Your task to perform on an android device: check storage Image 0: 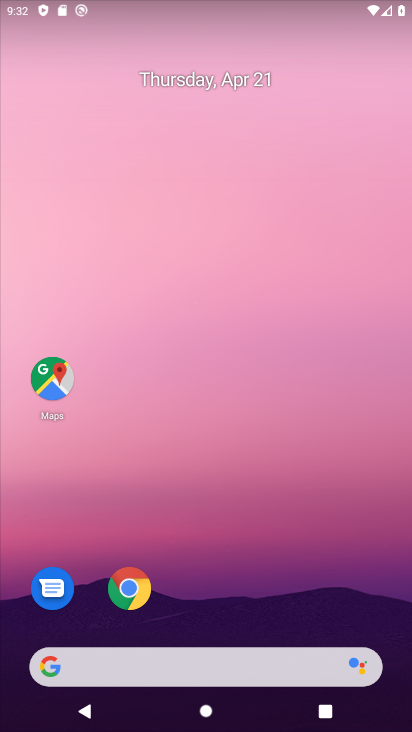
Step 0: drag from (286, 608) to (254, 1)
Your task to perform on an android device: check storage Image 1: 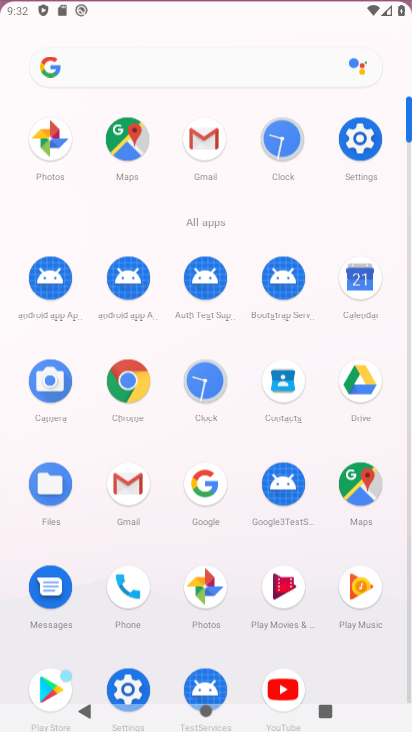
Step 1: click (371, 134)
Your task to perform on an android device: check storage Image 2: 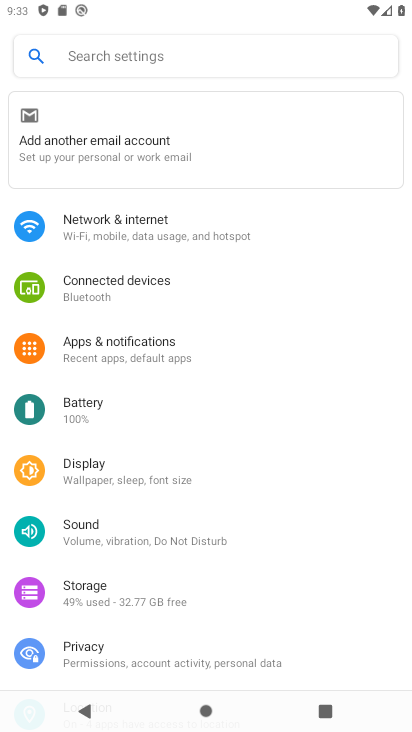
Step 2: click (119, 599)
Your task to perform on an android device: check storage Image 3: 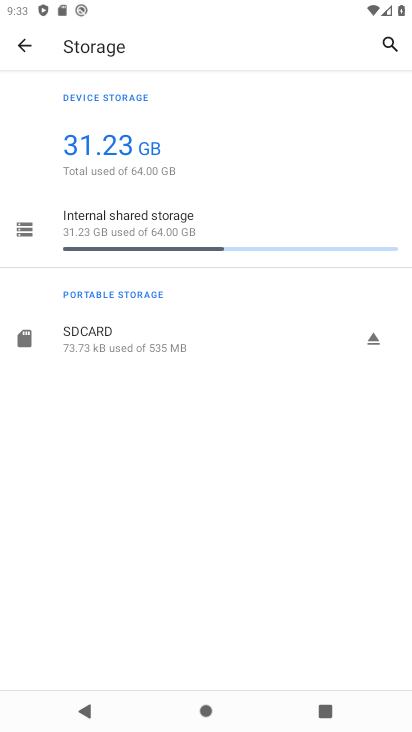
Step 3: task complete